Your task to perform on an android device: change the clock style Image 0: 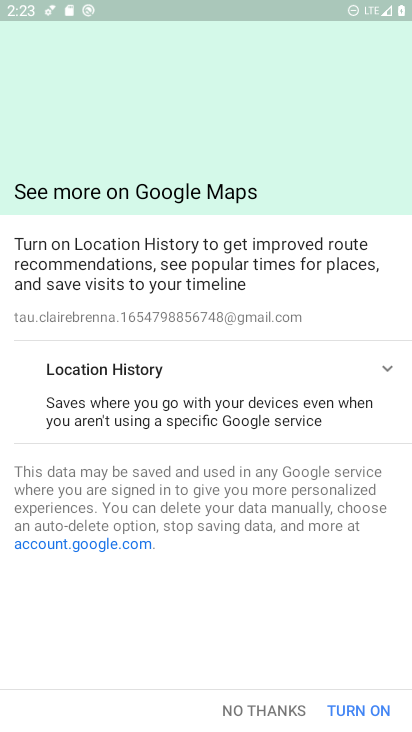
Step 0: press home button
Your task to perform on an android device: change the clock style Image 1: 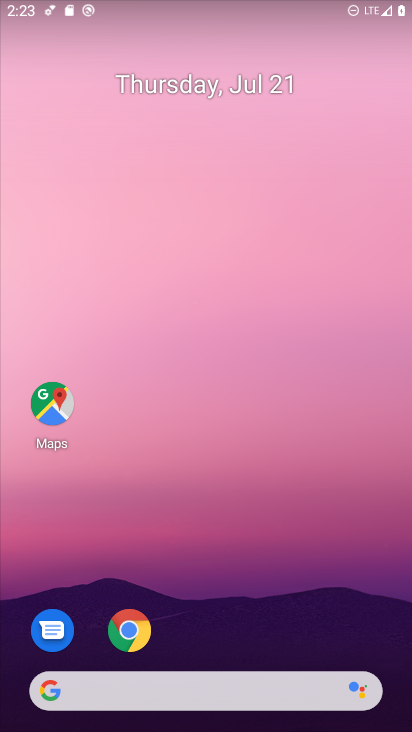
Step 1: drag from (339, 523) to (193, 5)
Your task to perform on an android device: change the clock style Image 2: 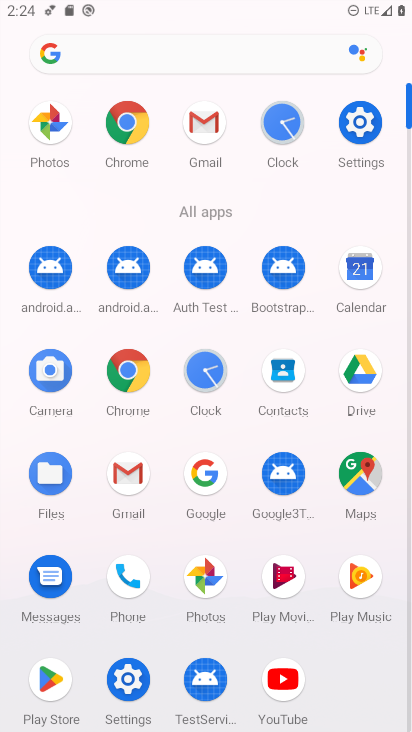
Step 2: click (284, 116)
Your task to perform on an android device: change the clock style Image 3: 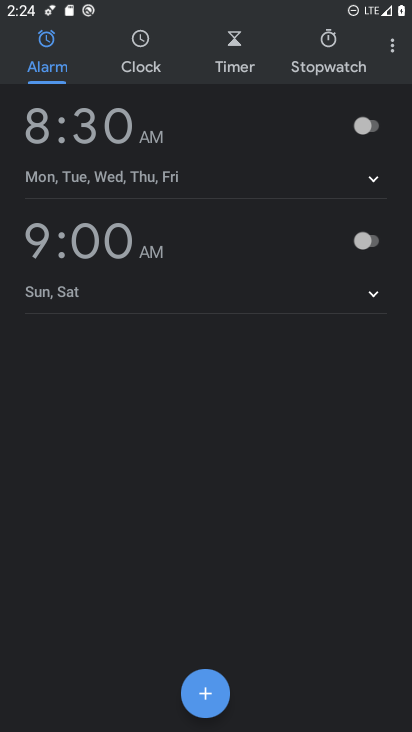
Step 3: click (397, 51)
Your task to perform on an android device: change the clock style Image 4: 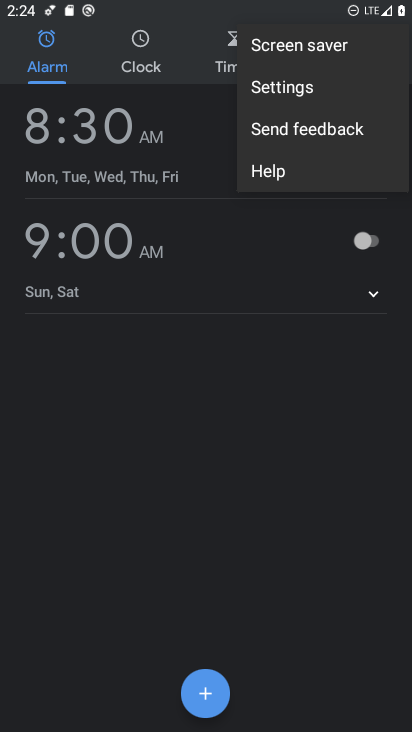
Step 4: click (293, 93)
Your task to perform on an android device: change the clock style Image 5: 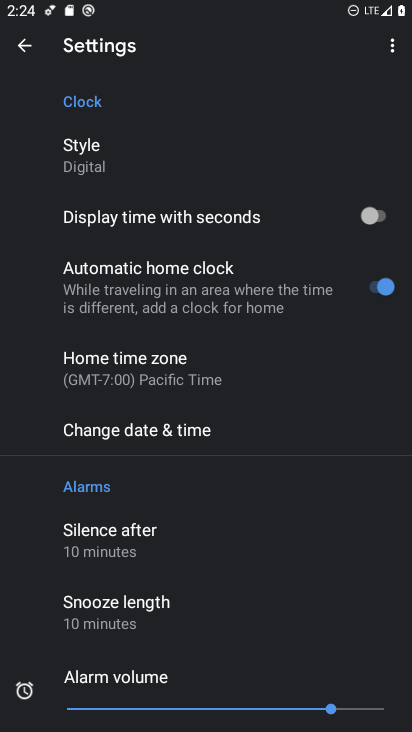
Step 5: click (209, 152)
Your task to perform on an android device: change the clock style Image 6: 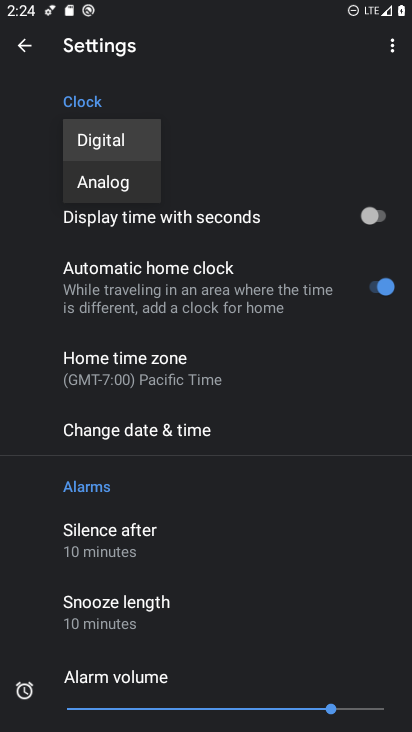
Step 6: click (128, 178)
Your task to perform on an android device: change the clock style Image 7: 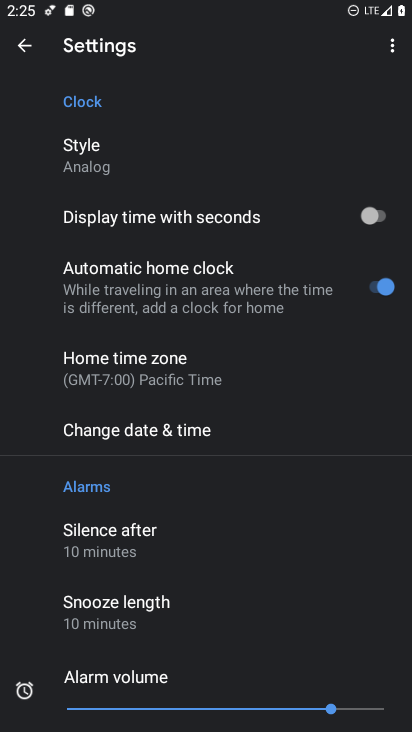
Step 7: task complete